Your task to perform on an android device: Open Maps and search for coffee Image 0: 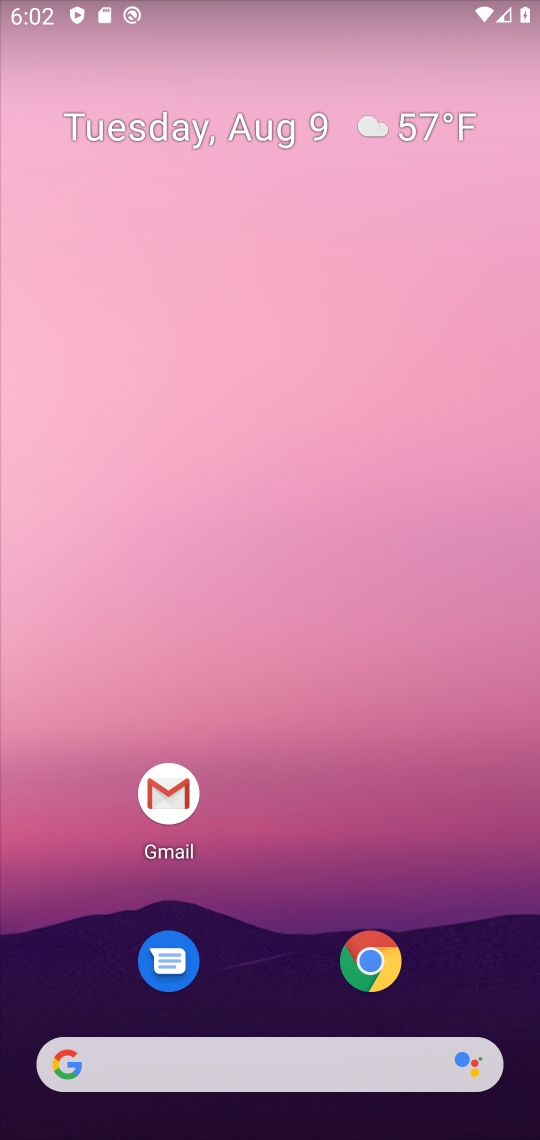
Step 0: drag from (331, 1075) to (297, 353)
Your task to perform on an android device: Open Maps and search for coffee Image 1: 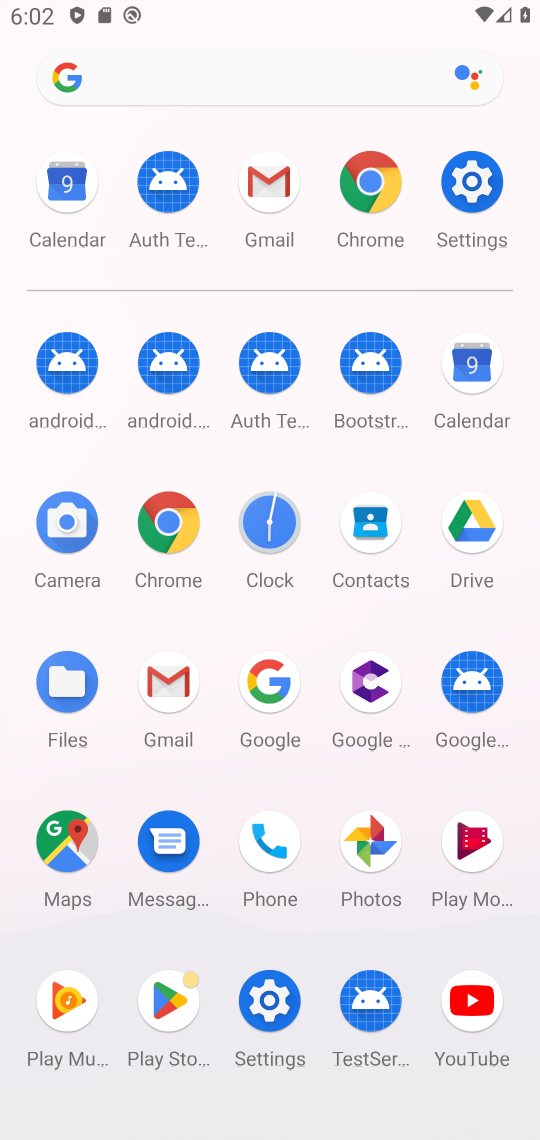
Step 1: click (42, 836)
Your task to perform on an android device: Open Maps and search for coffee Image 2: 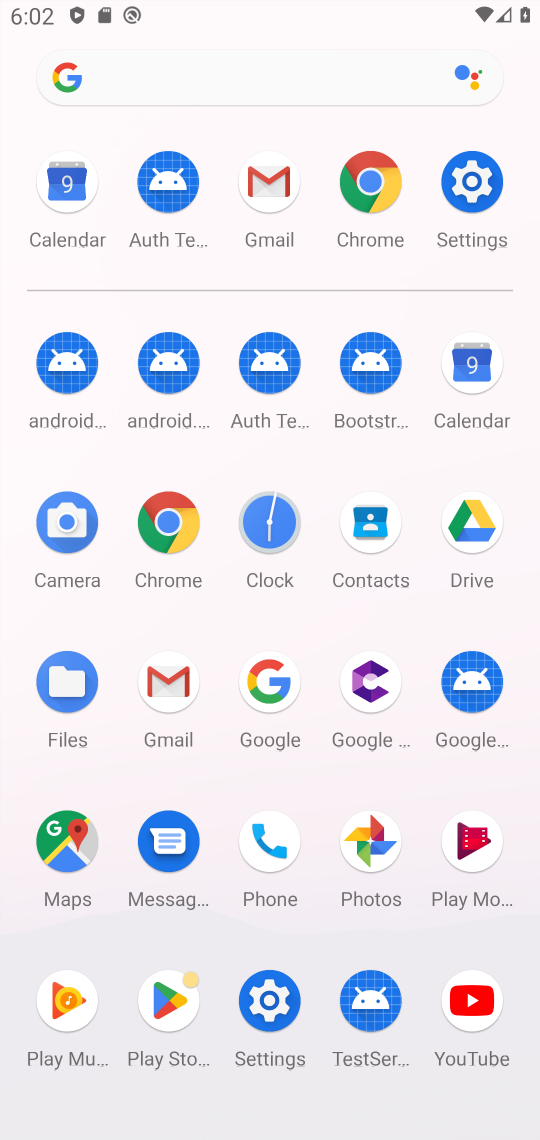
Step 2: click (42, 836)
Your task to perform on an android device: Open Maps and search for coffee Image 3: 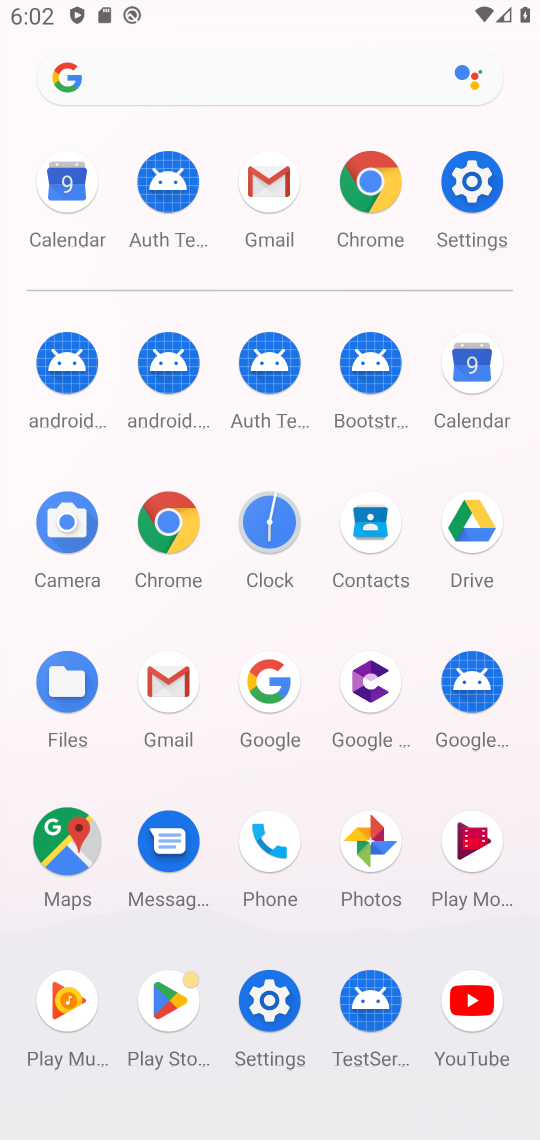
Step 3: click (42, 836)
Your task to perform on an android device: Open Maps and search for coffee Image 4: 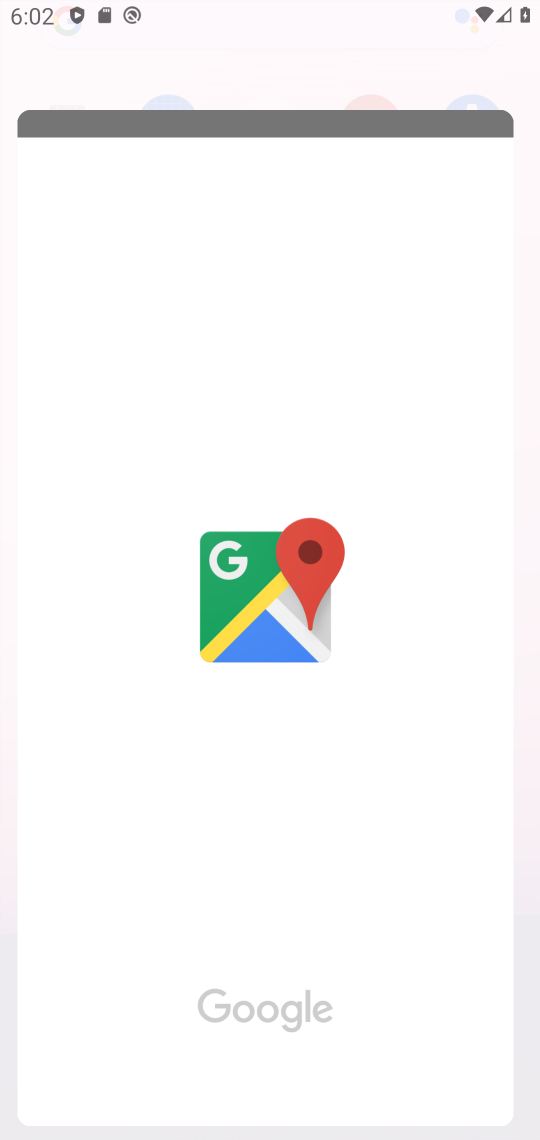
Step 4: click (42, 836)
Your task to perform on an android device: Open Maps and search for coffee Image 5: 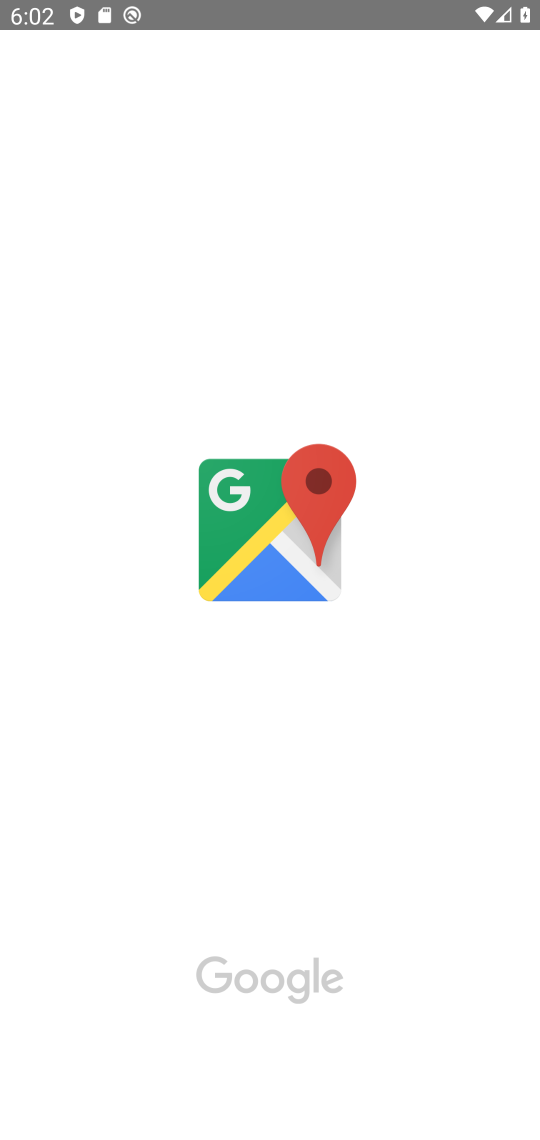
Step 5: click (42, 846)
Your task to perform on an android device: Open Maps and search for coffee Image 6: 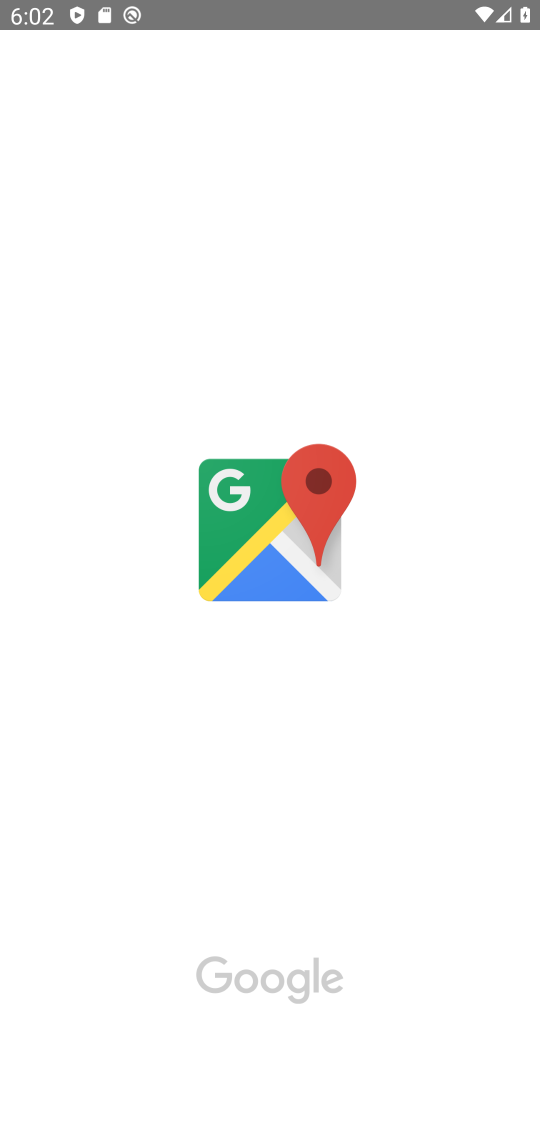
Step 6: click (42, 846)
Your task to perform on an android device: Open Maps and search for coffee Image 7: 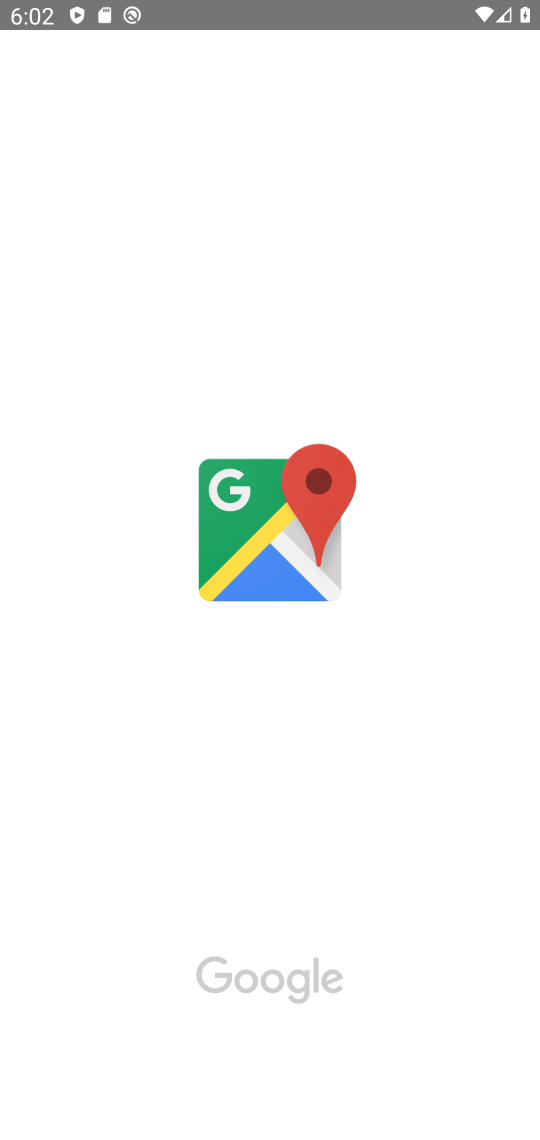
Step 7: click (252, 568)
Your task to perform on an android device: Open Maps and search for coffee Image 8: 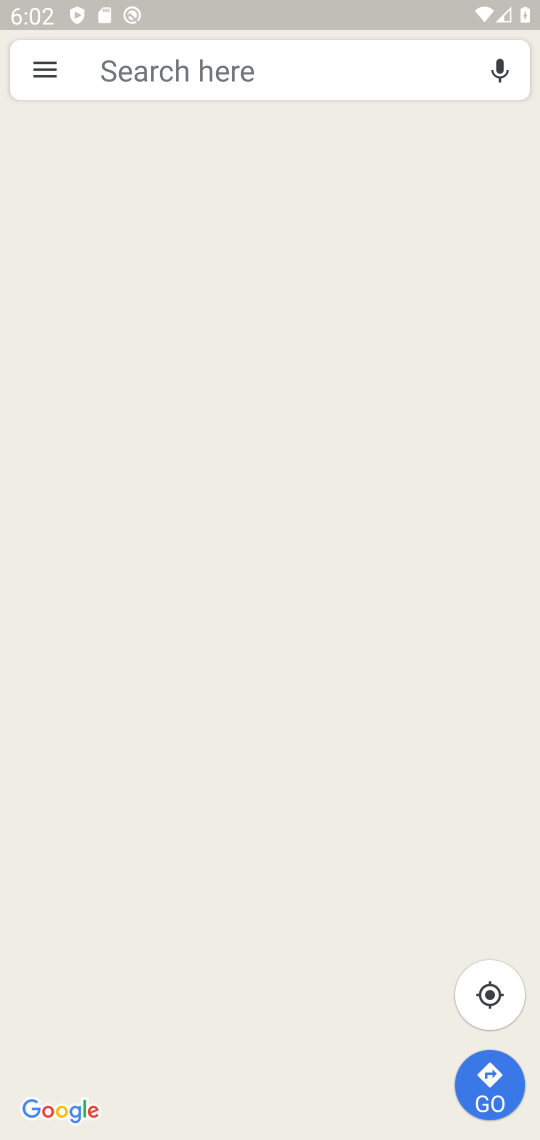
Step 8: click (259, 514)
Your task to perform on an android device: Open Maps and search for coffee Image 9: 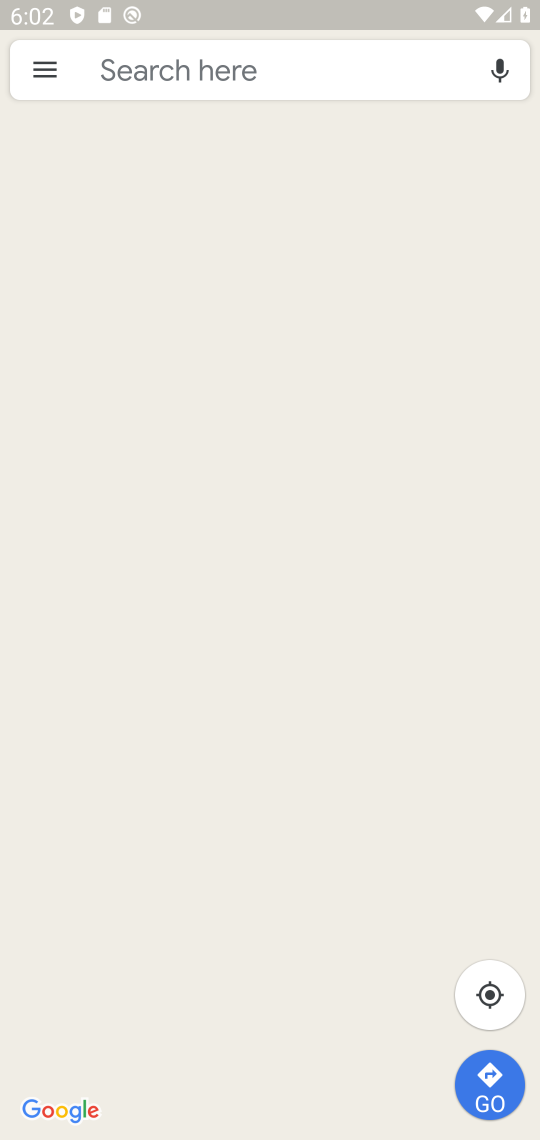
Step 9: click (168, 45)
Your task to perform on an android device: Open Maps and search for coffee Image 10: 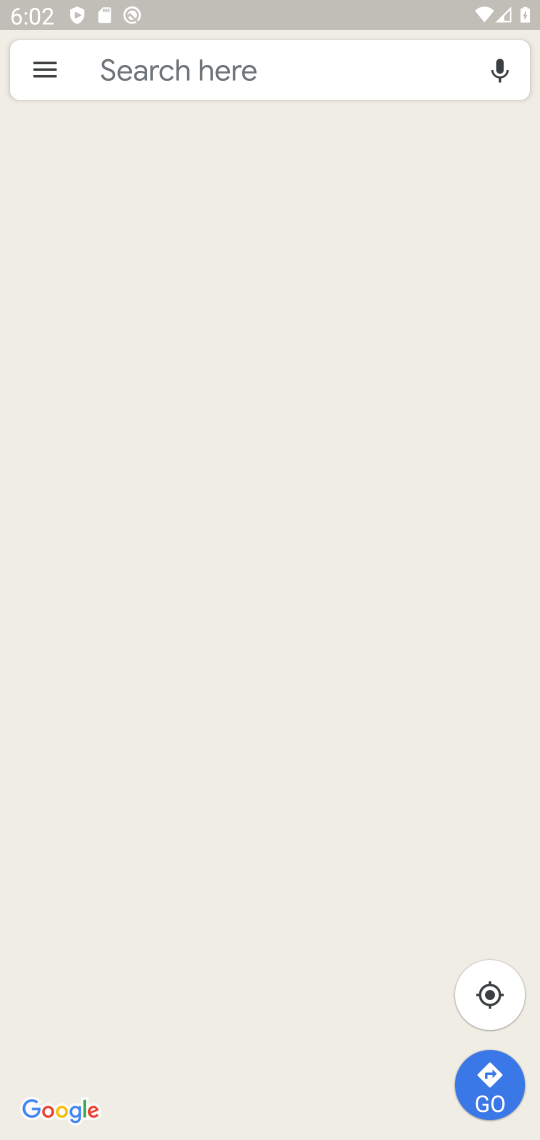
Step 10: click (153, 57)
Your task to perform on an android device: Open Maps and search for coffee Image 11: 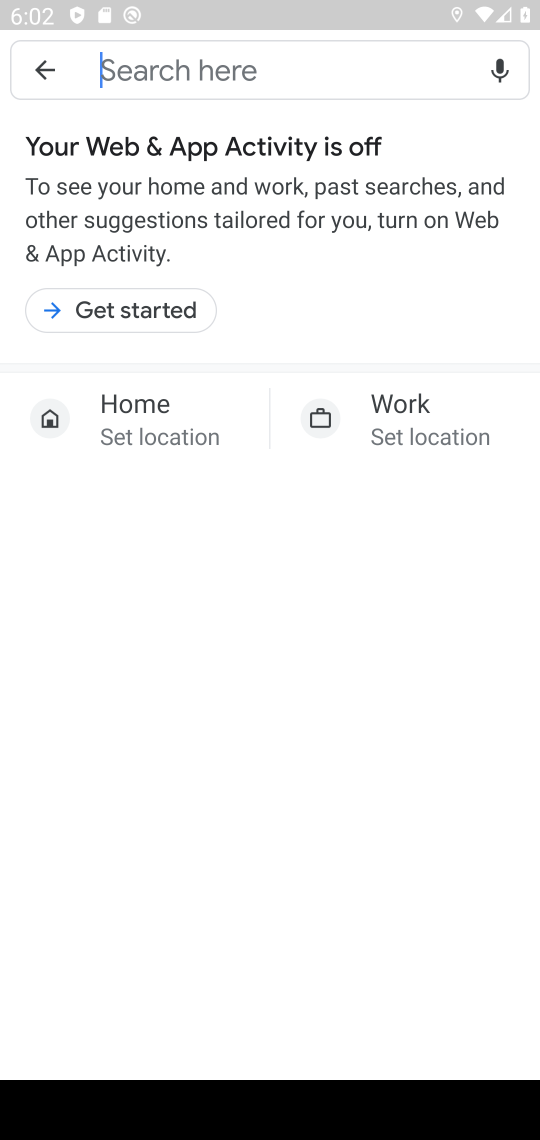
Step 11: type "coffee"
Your task to perform on an android device: Open Maps and search for coffee Image 12: 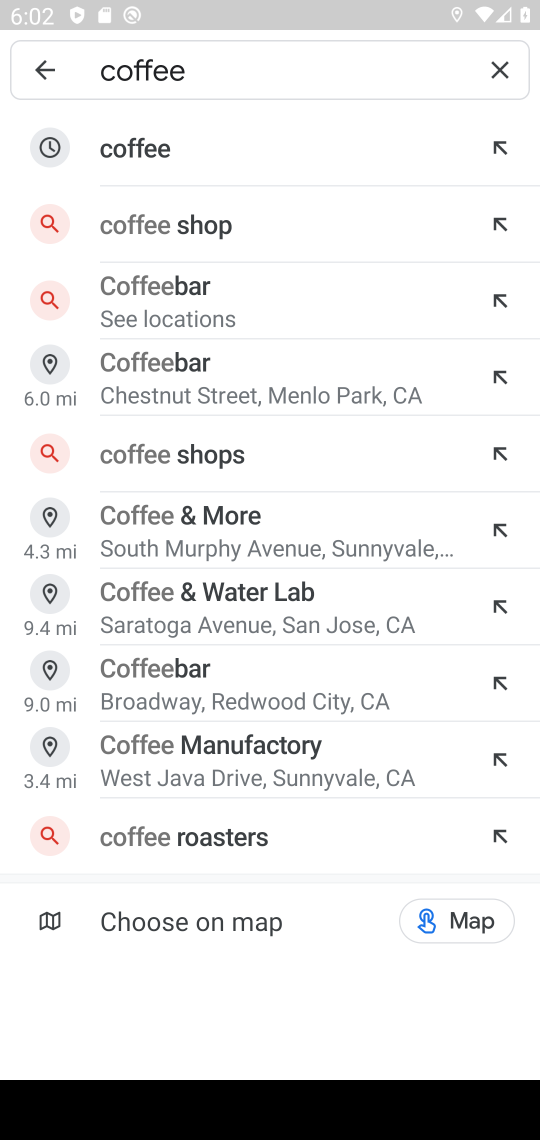
Step 12: click (177, 144)
Your task to perform on an android device: Open Maps and search for coffee Image 13: 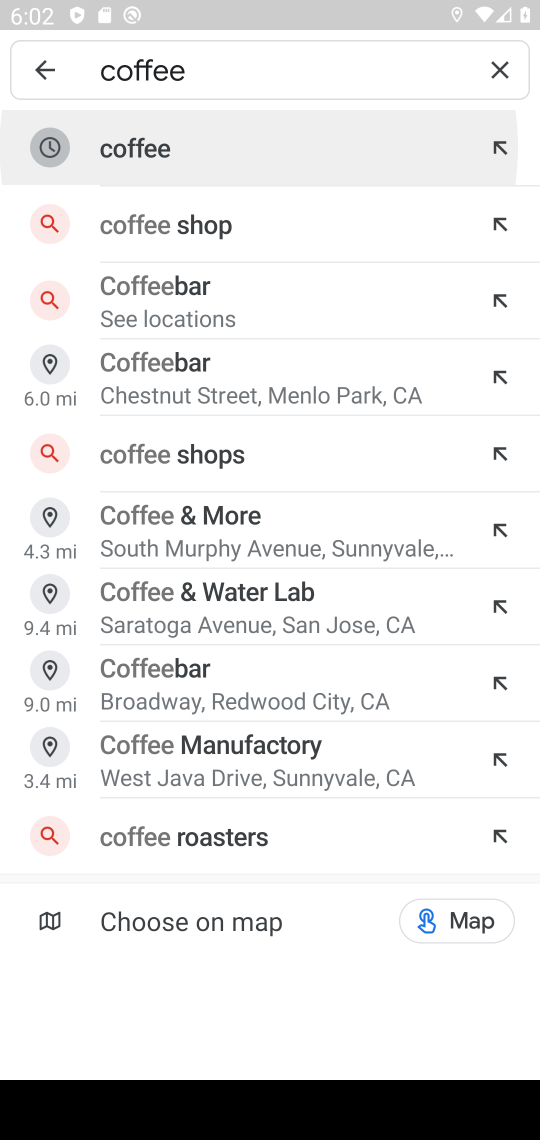
Step 13: click (177, 144)
Your task to perform on an android device: Open Maps and search for coffee Image 14: 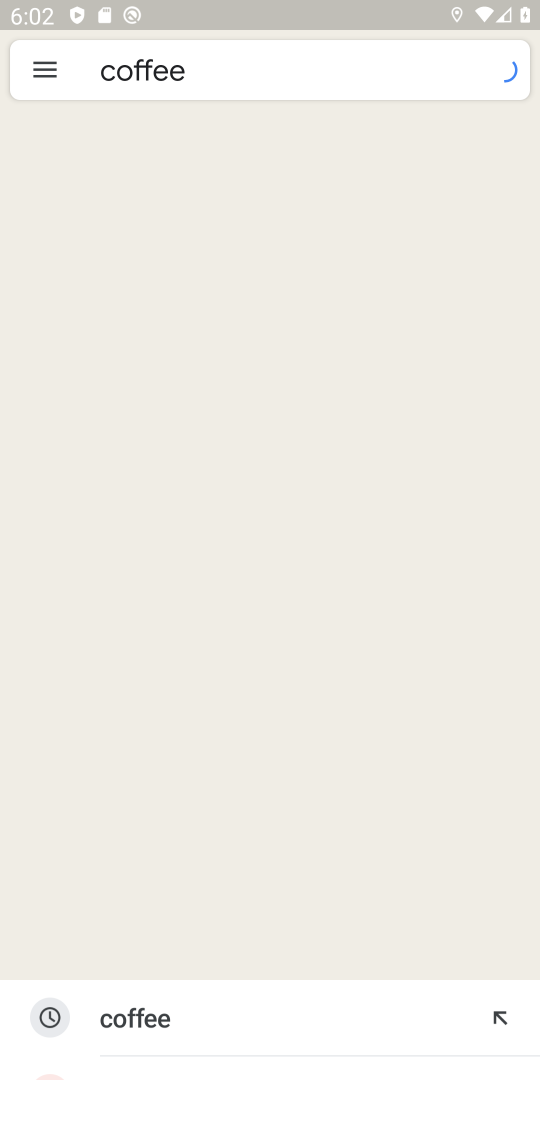
Step 14: click (166, 144)
Your task to perform on an android device: Open Maps and search for coffee Image 15: 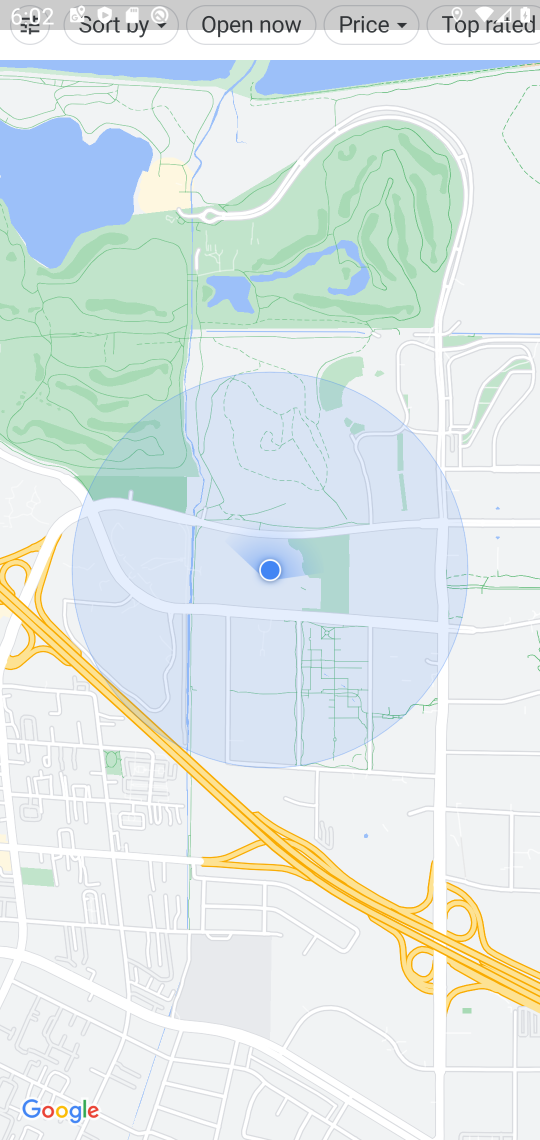
Step 15: task complete